Your task to perform on an android device: What's the weather going to be tomorrow? Image 0: 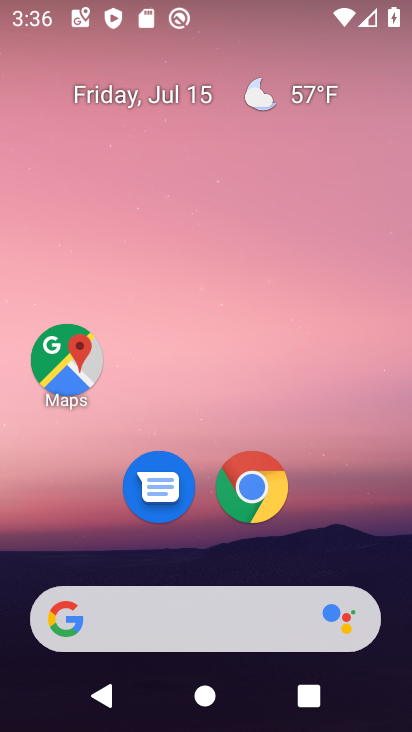
Step 0: drag from (159, 663) to (227, 258)
Your task to perform on an android device: What's the weather going to be tomorrow? Image 1: 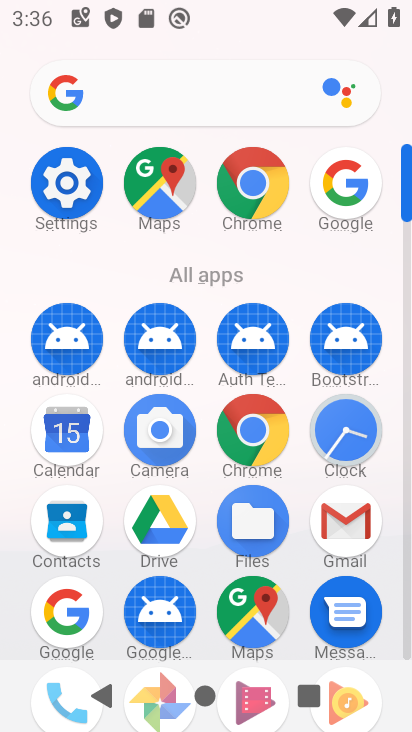
Step 1: drag from (186, 539) to (209, 294)
Your task to perform on an android device: What's the weather going to be tomorrow? Image 2: 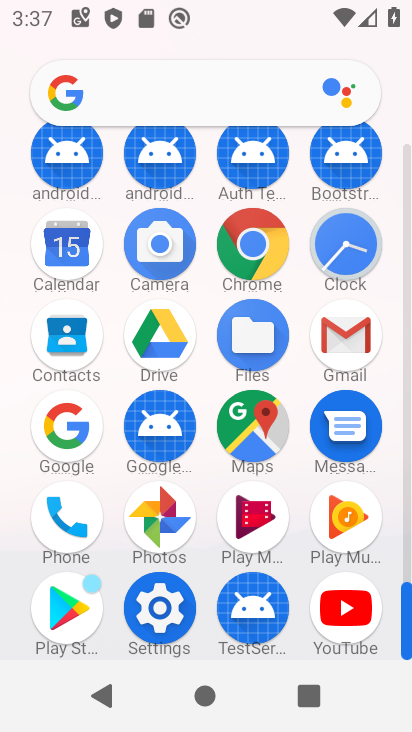
Step 2: click (66, 438)
Your task to perform on an android device: What's the weather going to be tomorrow? Image 3: 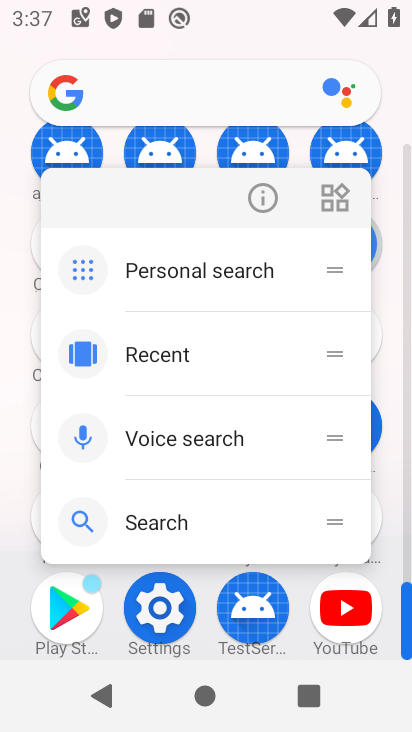
Step 3: click (15, 125)
Your task to perform on an android device: What's the weather going to be tomorrow? Image 4: 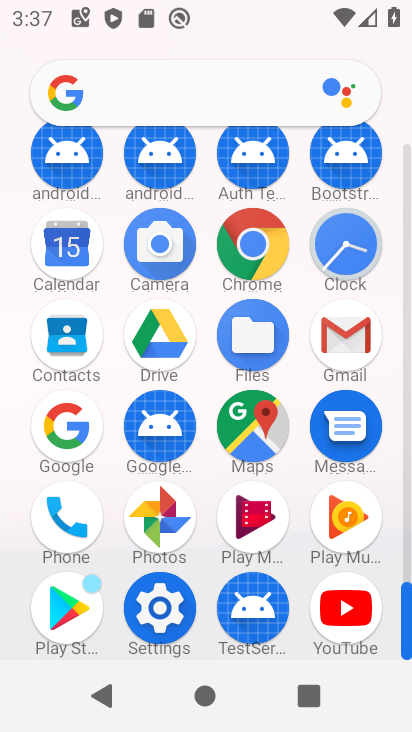
Step 4: click (78, 423)
Your task to perform on an android device: What's the weather going to be tomorrow? Image 5: 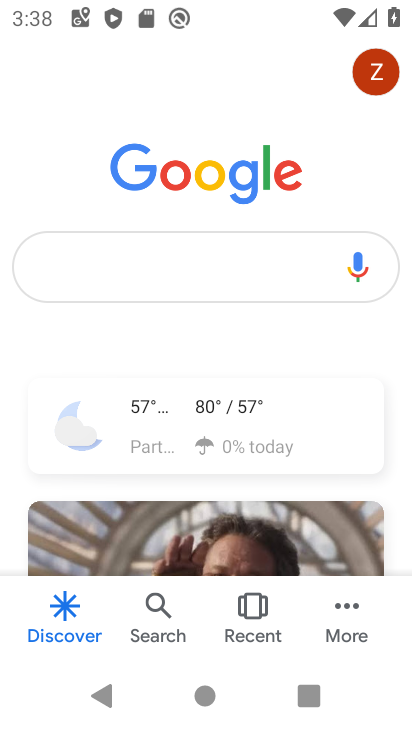
Step 5: click (170, 271)
Your task to perform on an android device: What's the weather going to be tomorrow? Image 6: 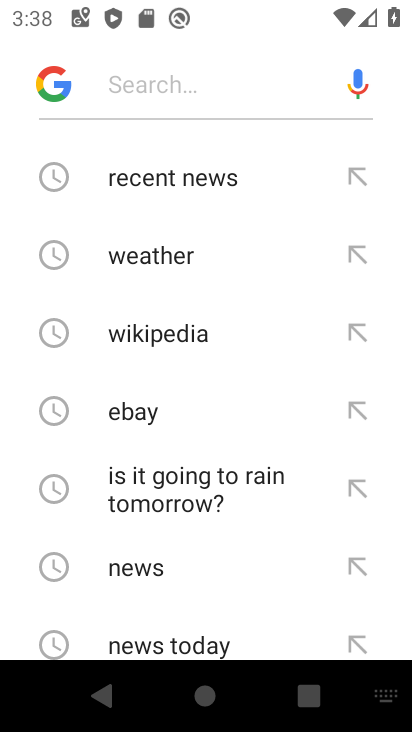
Step 6: click (170, 255)
Your task to perform on an android device: What's the weather going to be tomorrow? Image 7: 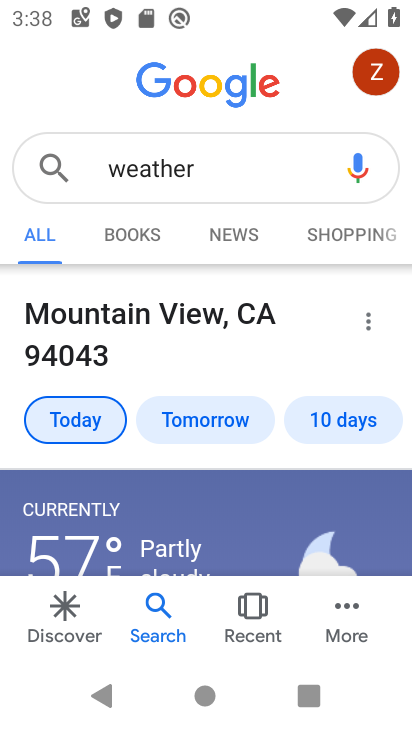
Step 7: click (214, 425)
Your task to perform on an android device: What's the weather going to be tomorrow? Image 8: 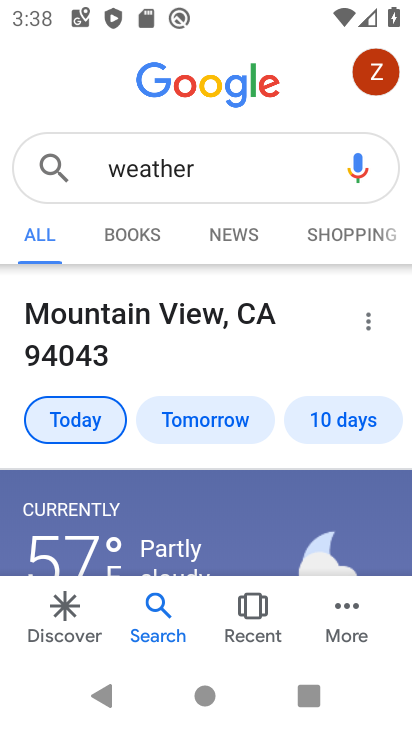
Step 8: click (215, 424)
Your task to perform on an android device: What's the weather going to be tomorrow? Image 9: 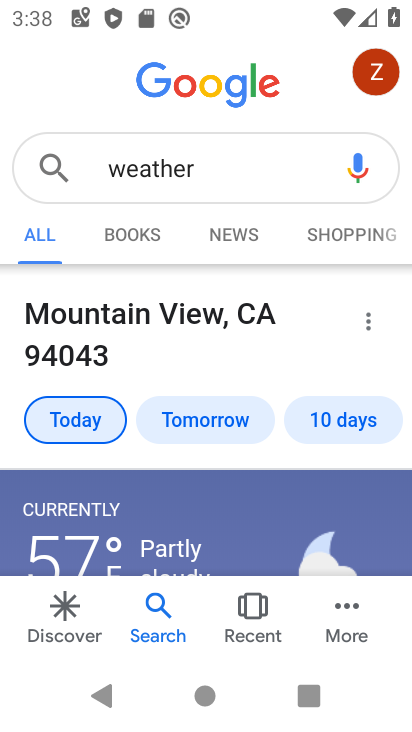
Step 9: click (216, 421)
Your task to perform on an android device: What's the weather going to be tomorrow? Image 10: 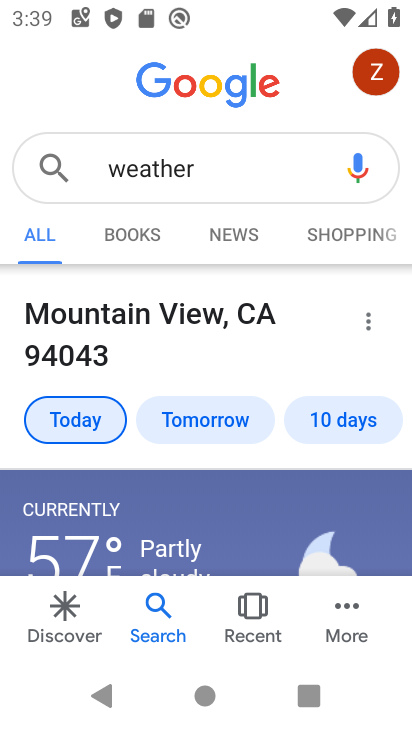
Step 10: click (211, 422)
Your task to perform on an android device: What's the weather going to be tomorrow? Image 11: 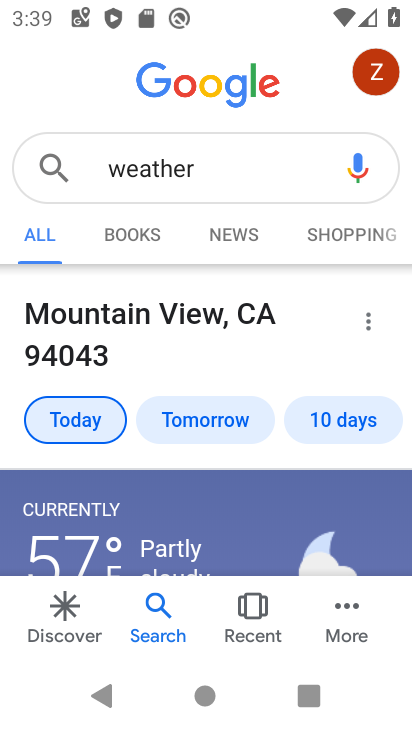
Step 11: task complete